Your task to perform on an android device: turn notification dots off Image 0: 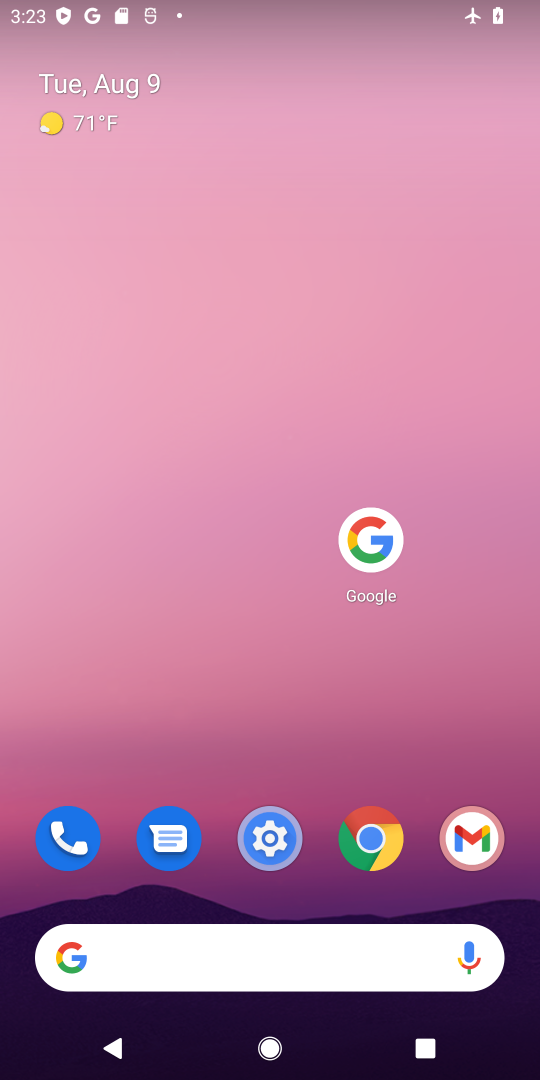
Step 0: drag from (251, 697) to (340, 162)
Your task to perform on an android device: turn notification dots off Image 1: 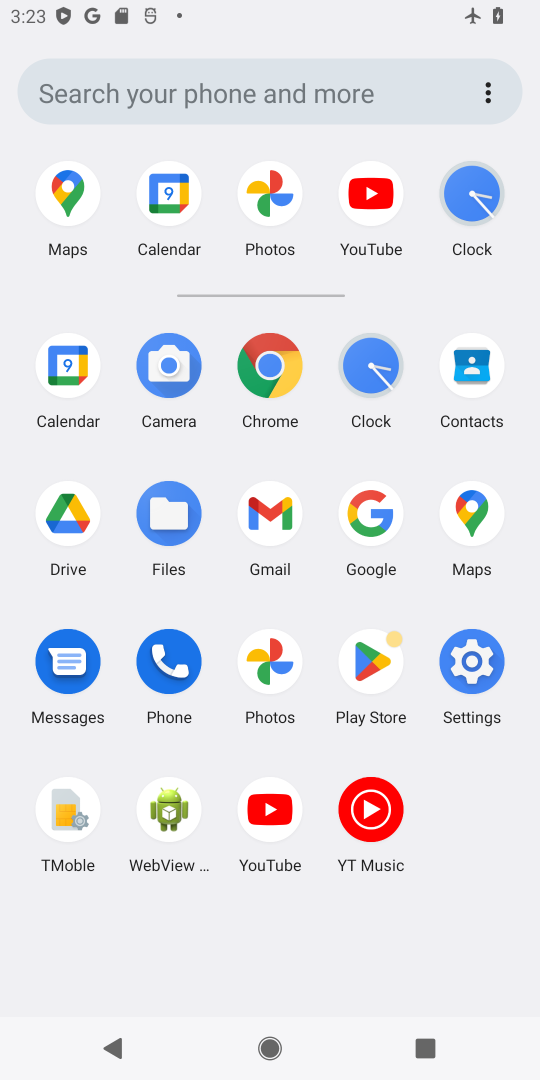
Step 1: click (485, 672)
Your task to perform on an android device: turn notification dots off Image 2: 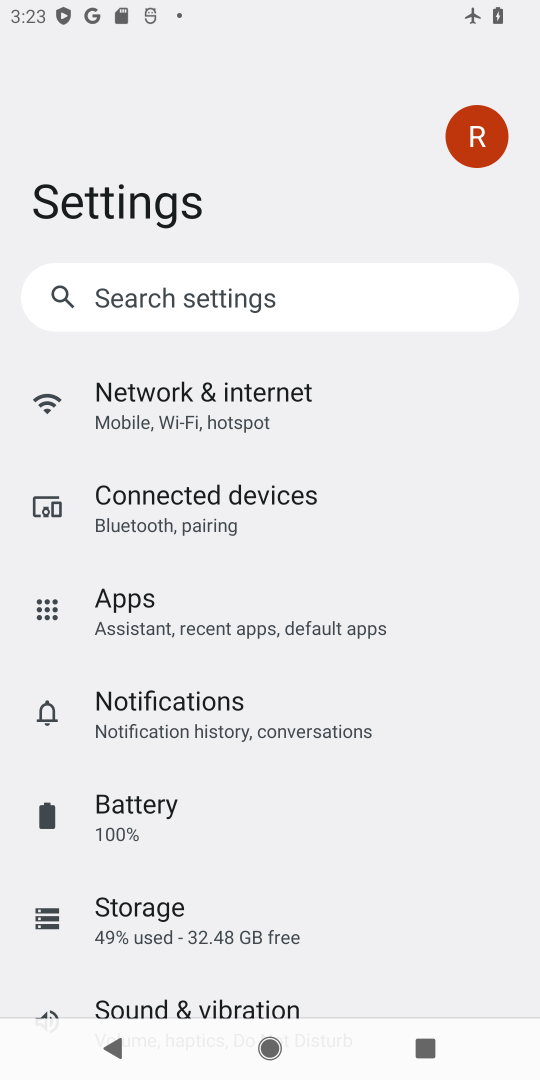
Step 2: click (158, 708)
Your task to perform on an android device: turn notification dots off Image 3: 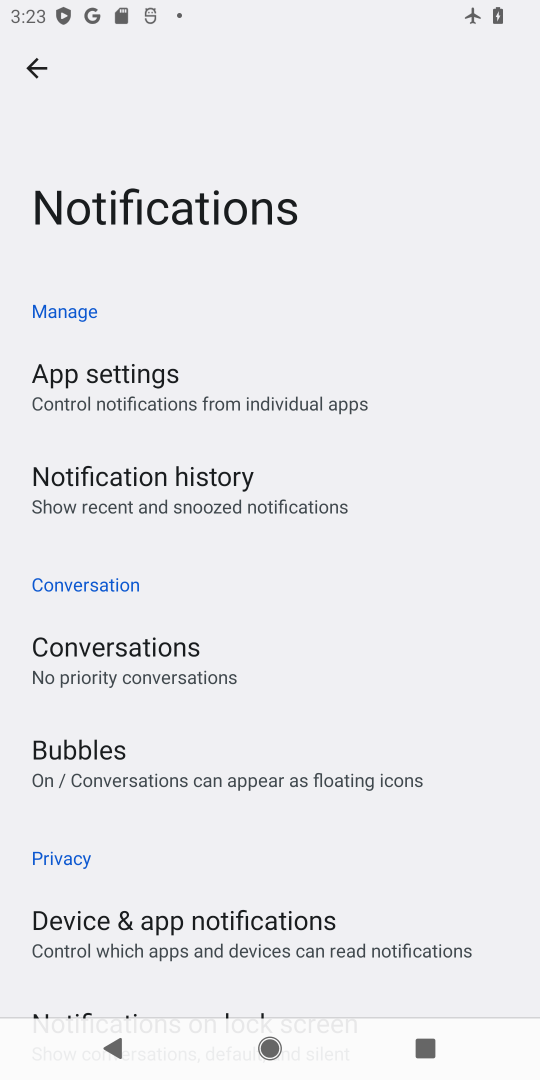
Step 3: drag from (363, 700) to (455, 222)
Your task to perform on an android device: turn notification dots off Image 4: 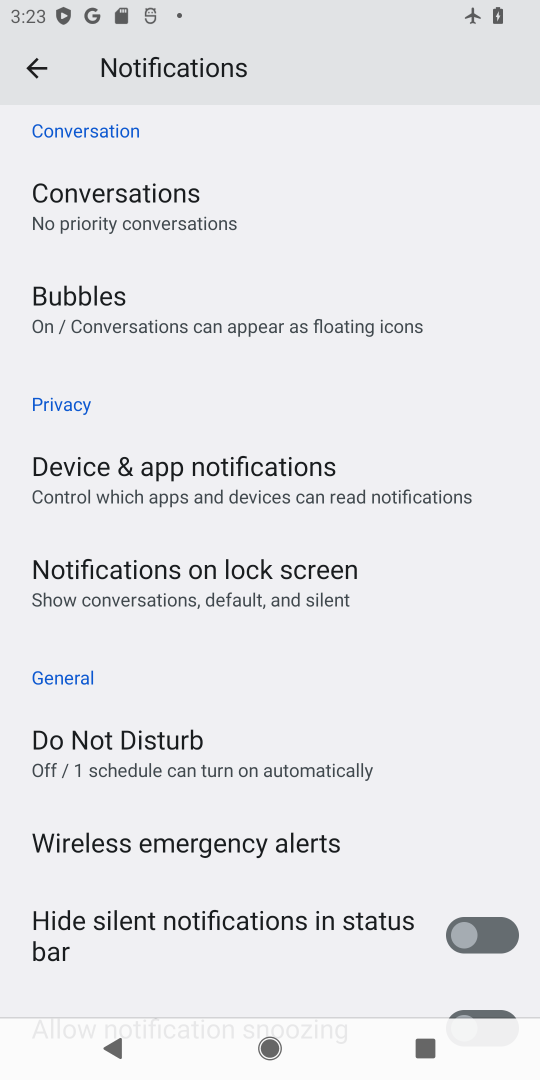
Step 4: click (317, 478)
Your task to perform on an android device: turn notification dots off Image 5: 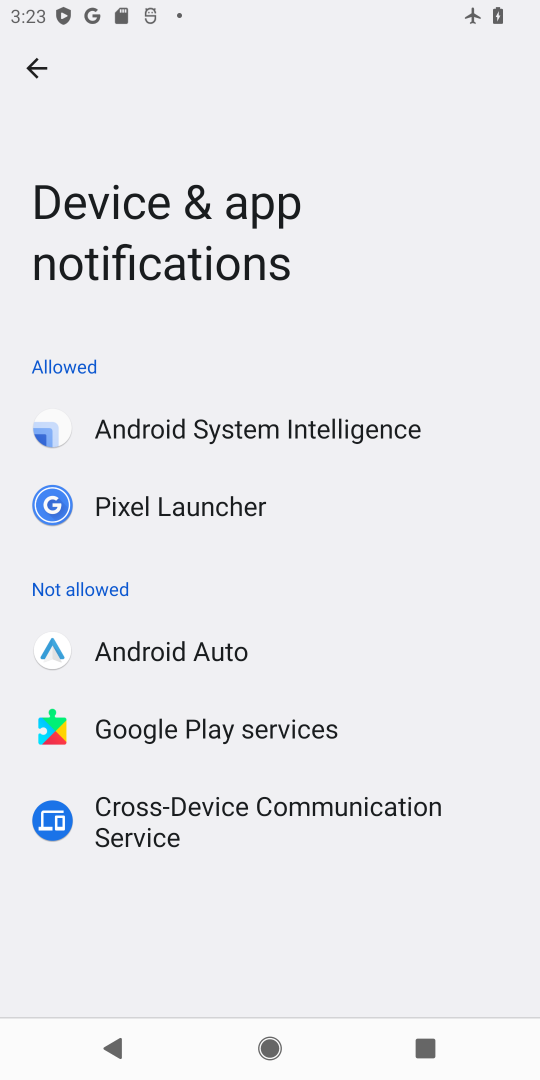
Step 5: click (44, 80)
Your task to perform on an android device: turn notification dots off Image 6: 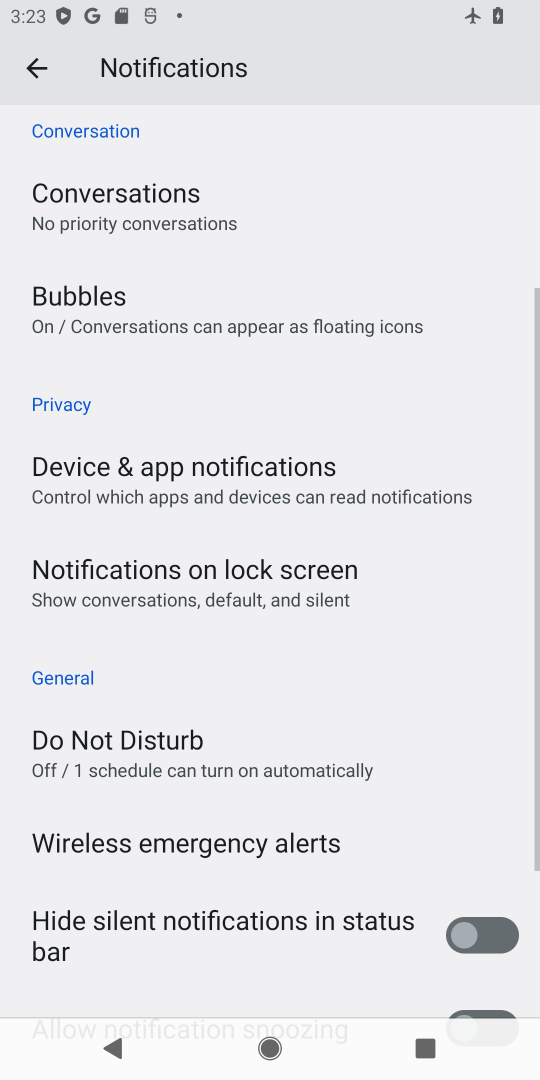
Step 6: drag from (424, 870) to (535, 116)
Your task to perform on an android device: turn notification dots off Image 7: 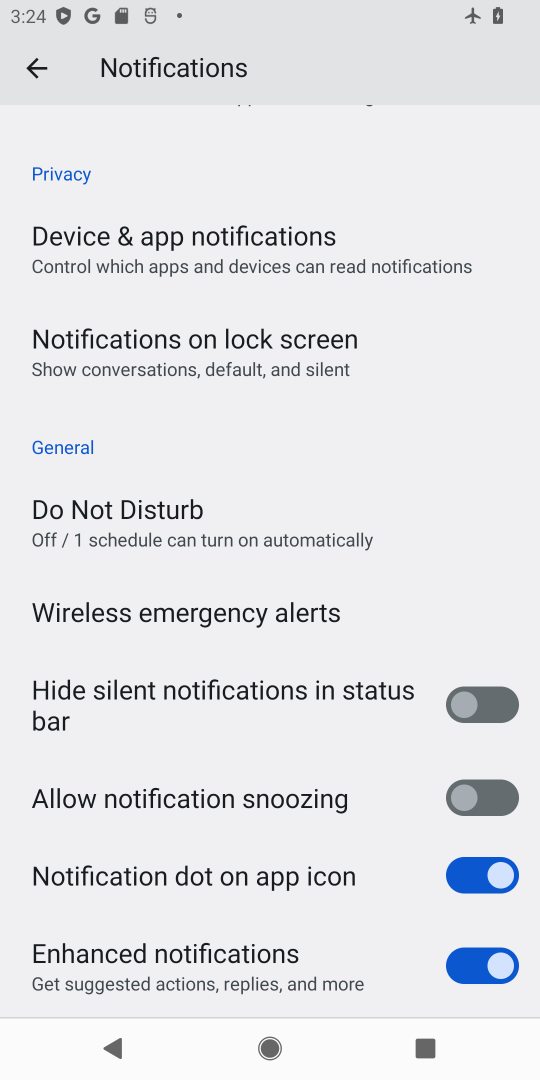
Step 7: click (489, 881)
Your task to perform on an android device: turn notification dots off Image 8: 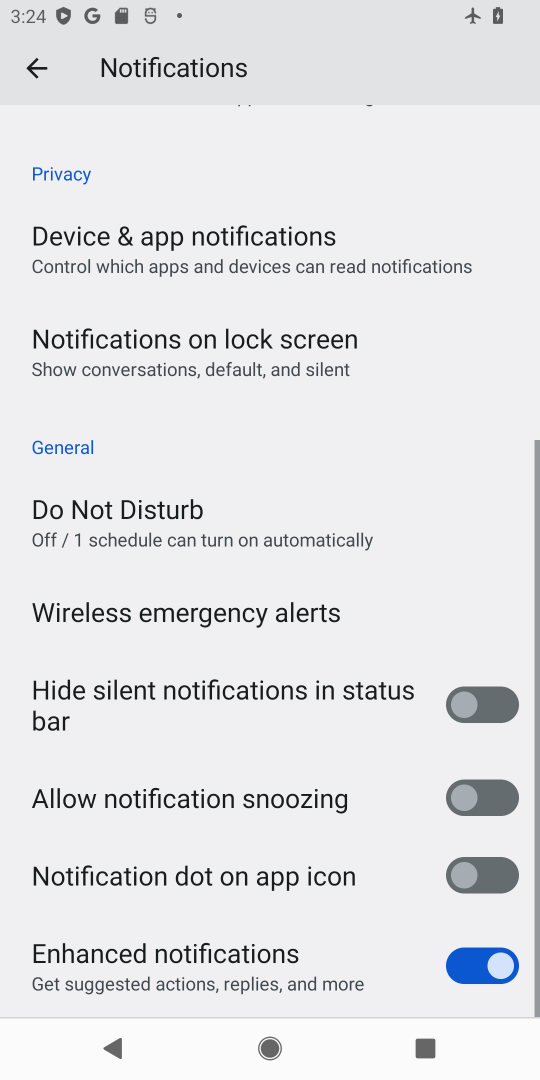
Step 8: task complete